Your task to perform on an android device: delete a single message in the gmail app Image 0: 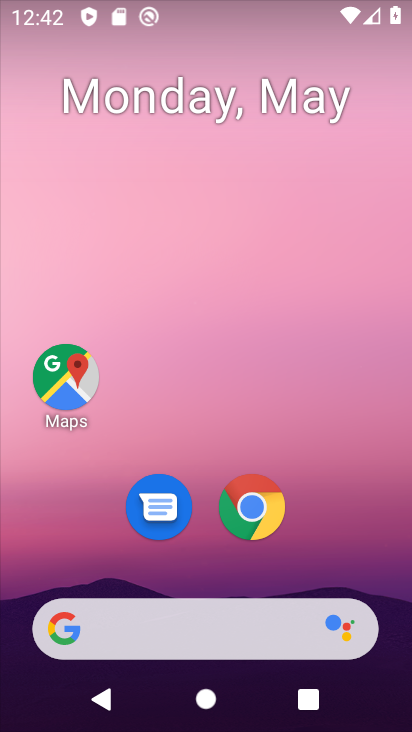
Step 0: drag from (243, 712) to (227, 73)
Your task to perform on an android device: delete a single message in the gmail app Image 1: 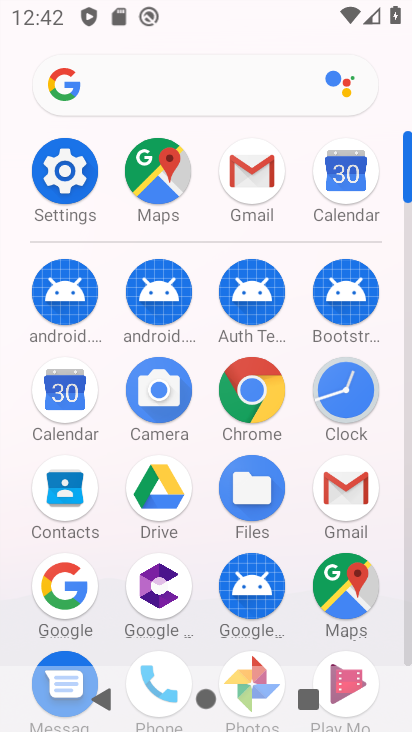
Step 1: click (343, 495)
Your task to perform on an android device: delete a single message in the gmail app Image 2: 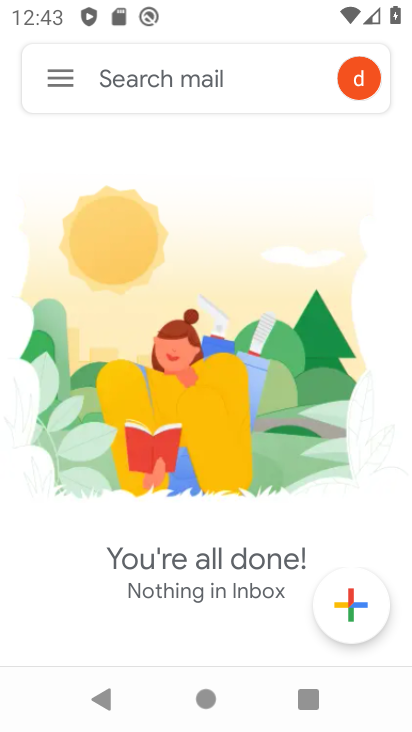
Step 2: task complete